Your task to perform on an android device: Look up the best rated gaming chair on Target. Image 0: 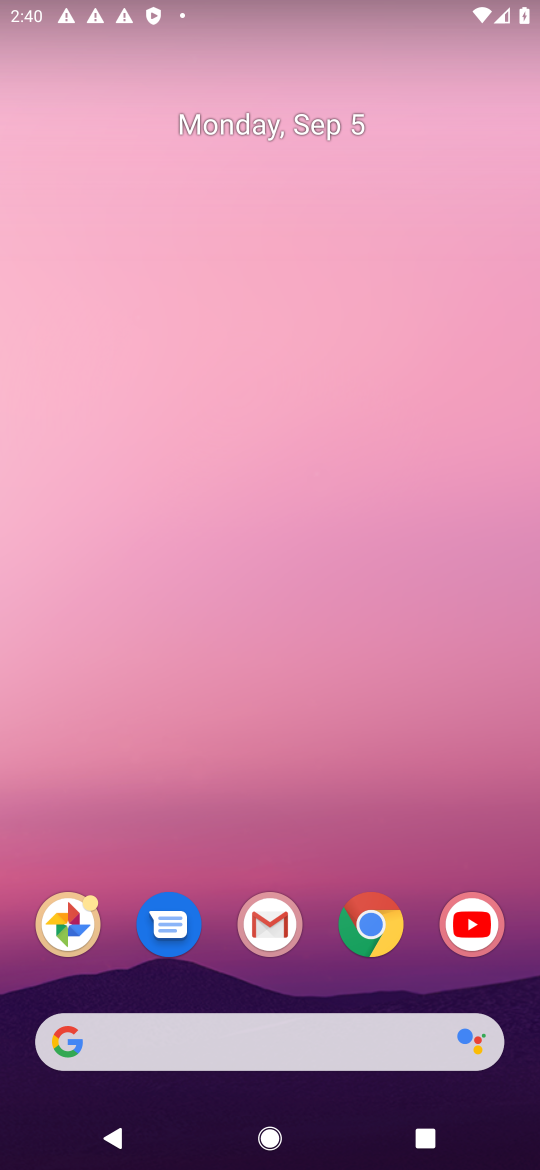
Step 0: press home button
Your task to perform on an android device: Look up the best rated gaming chair on Target. Image 1: 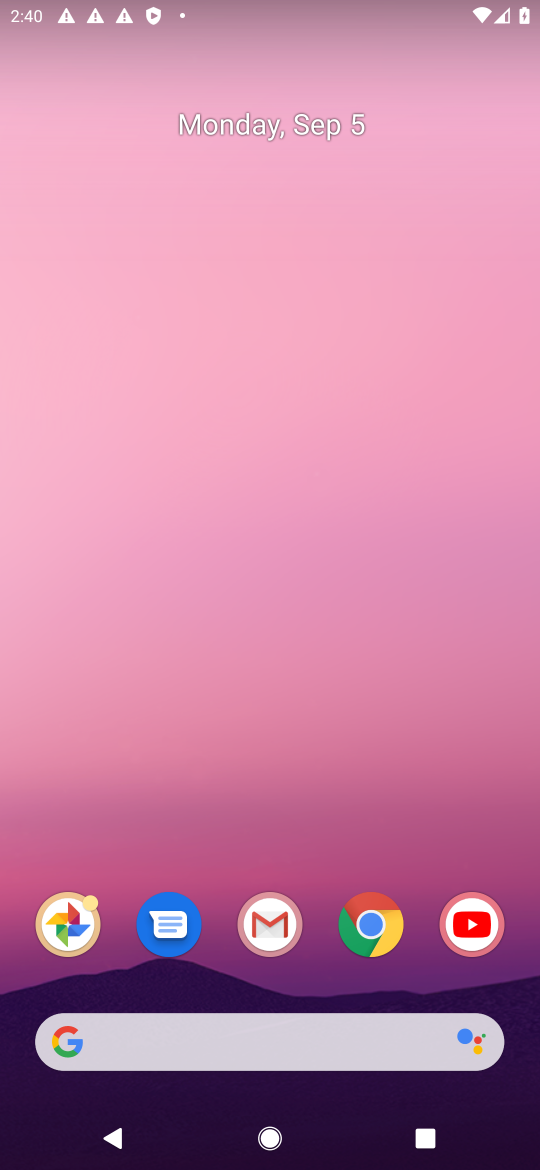
Step 1: drag from (276, 795) to (275, 217)
Your task to perform on an android device: Look up the best rated gaming chair on Target. Image 2: 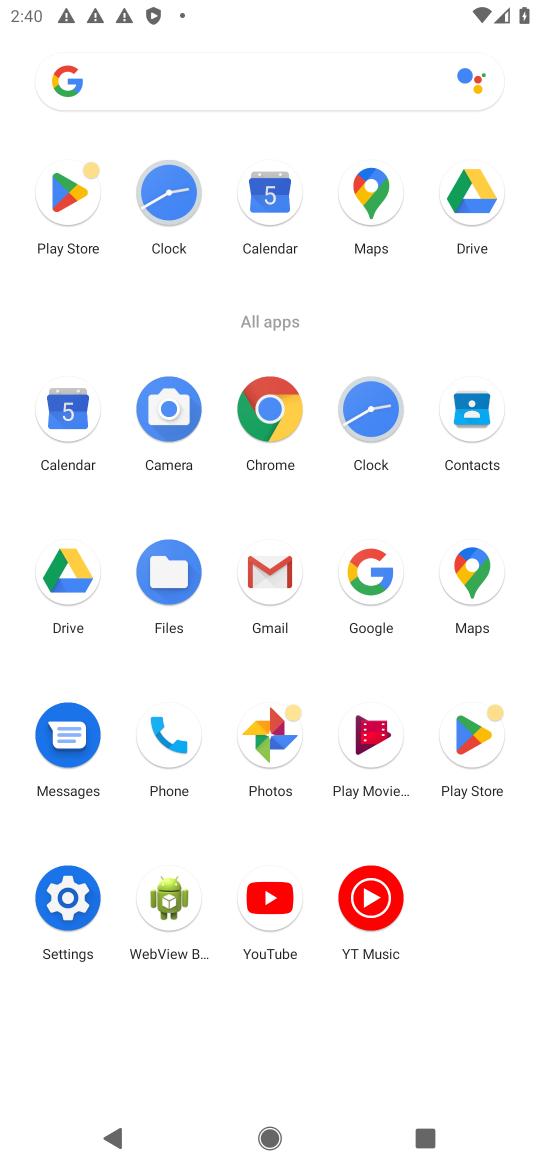
Step 2: click (274, 446)
Your task to perform on an android device: Look up the best rated gaming chair on Target. Image 3: 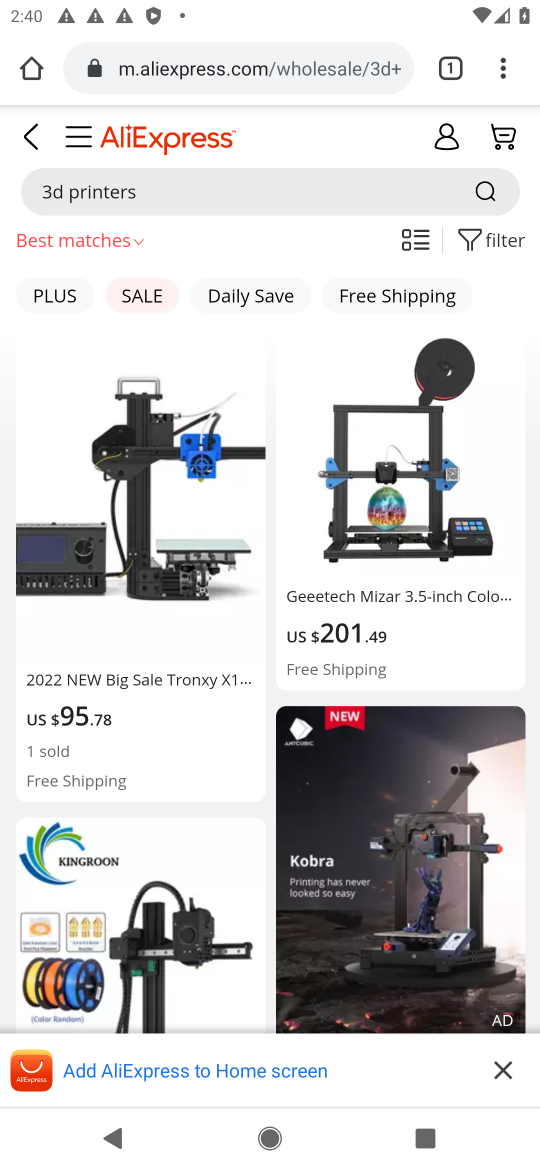
Step 3: click (333, 62)
Your task to perform on an android device: Look up the best rated gaming chair on Target. Image 4: 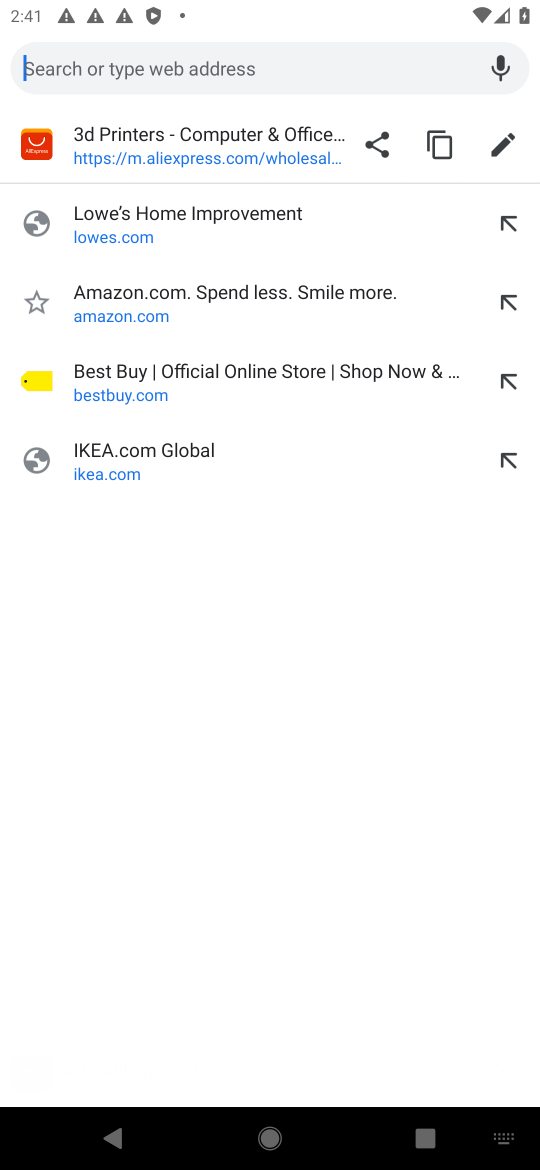
Step 4: type "target"
Your task to perform on an android device: Look up the best rated gaming chair on Target. Image 5: 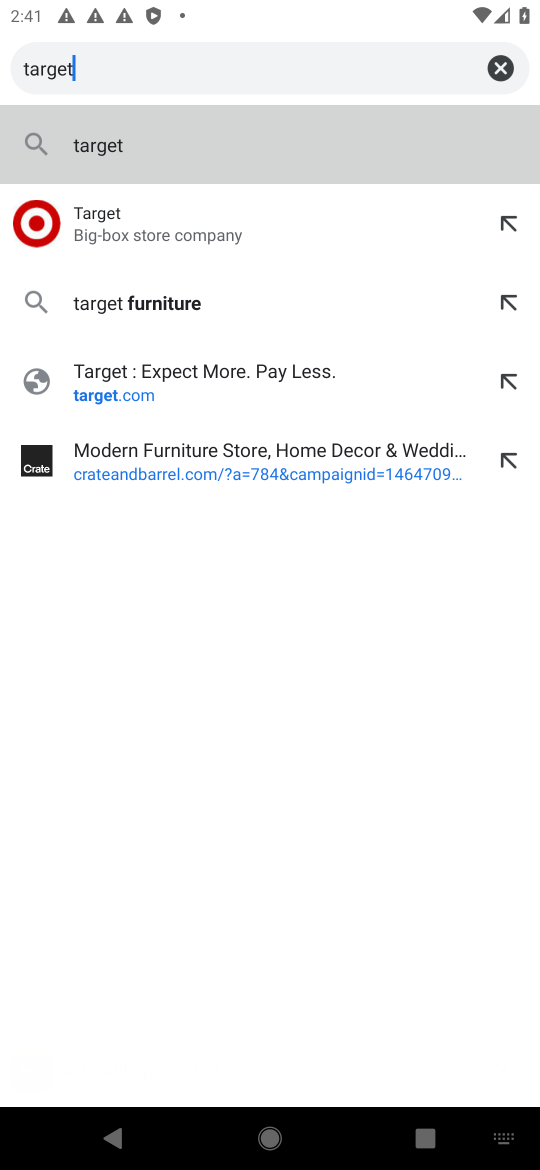
Step 5: click (137, 215)
Your task to perform on an android device: Look up the best rated gaming chair on Target. Image 6: 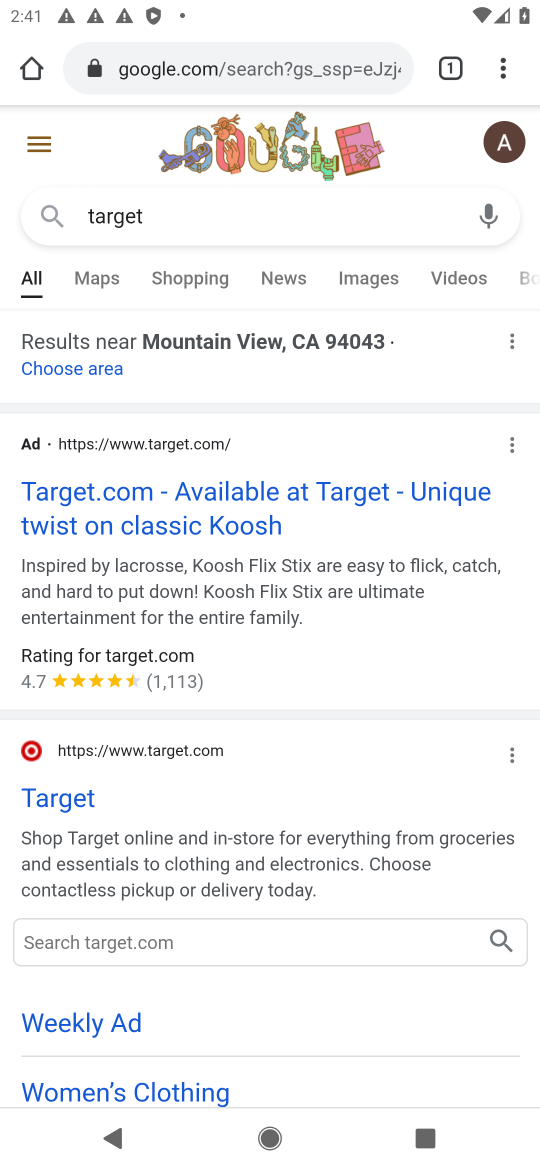
Step 6: click (54, 803)
Your task to perform on an android device: Look up the best rated gaming chair on Target. Image 7: 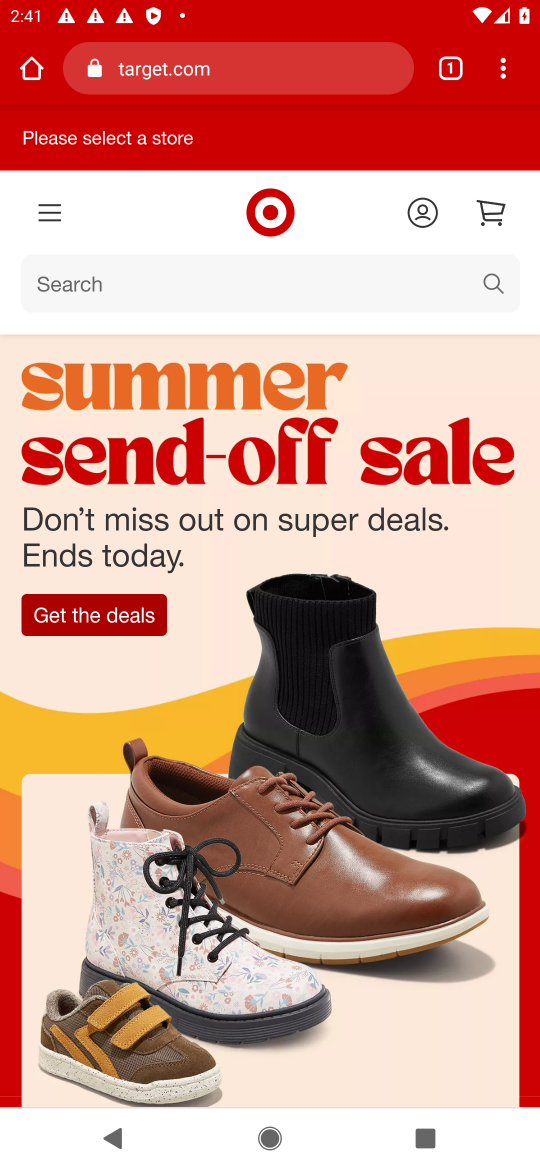
Step 7: click (434, 283)
Your task to perform on an android device: Look up the best rated gaming chair on Target. Image 8: 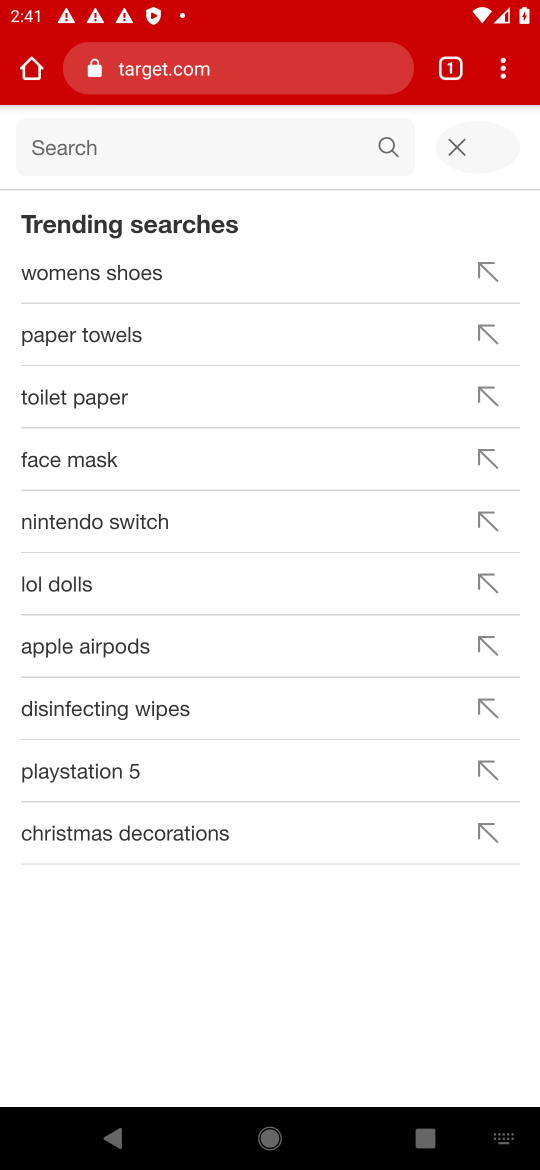
Step 8: type "best rated gaming chair"
Your task to perform on an android device: Look up the best rated gaming chair on Target. Image 9: 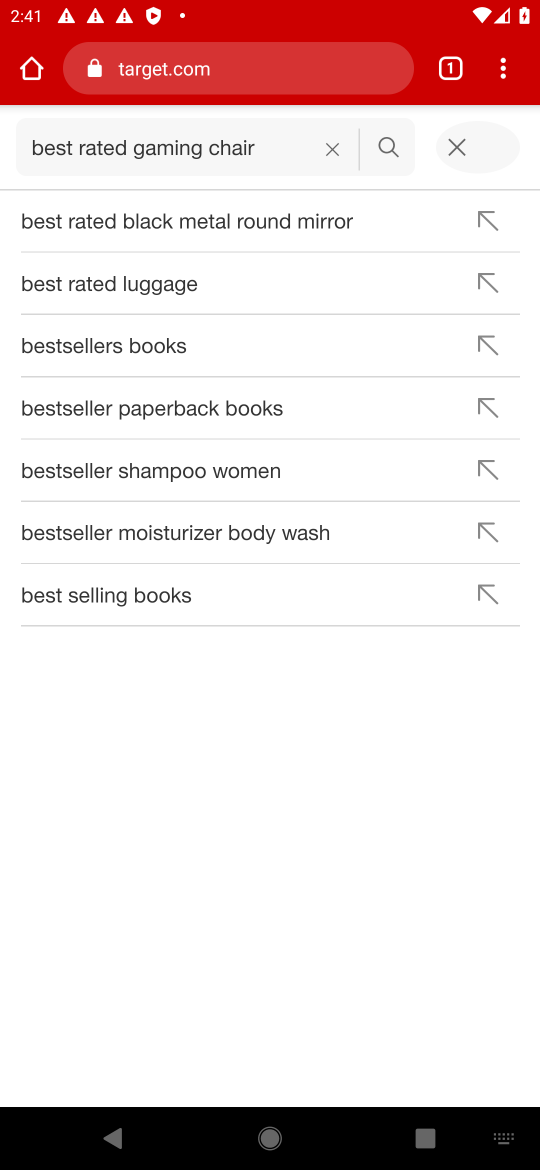
Step 9: click (386, 149)
Your task to perform on an android device: Look up the best rated gaming chair on Target. Image 10: 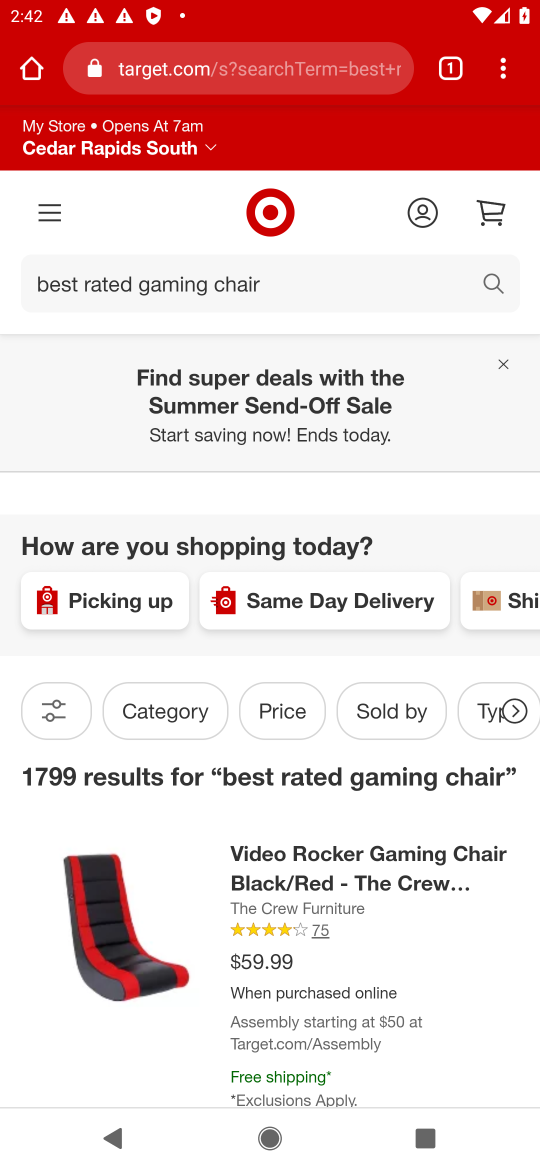
Step 10: task complete